Your task to perform on an android device: Add "beats solo 3" to the cart on newegg, then select checkout. Image 0: 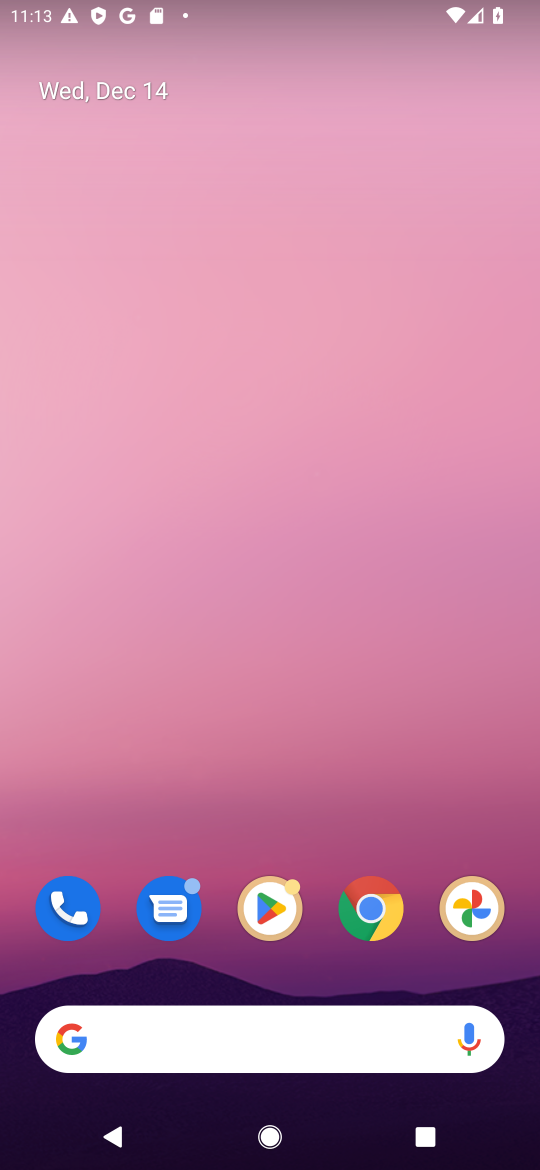
Step 0: click (378, 908)
Your task to perform on an android device: Add "beats solo 3" to the cart on newegg, then select checkout. Image 1: 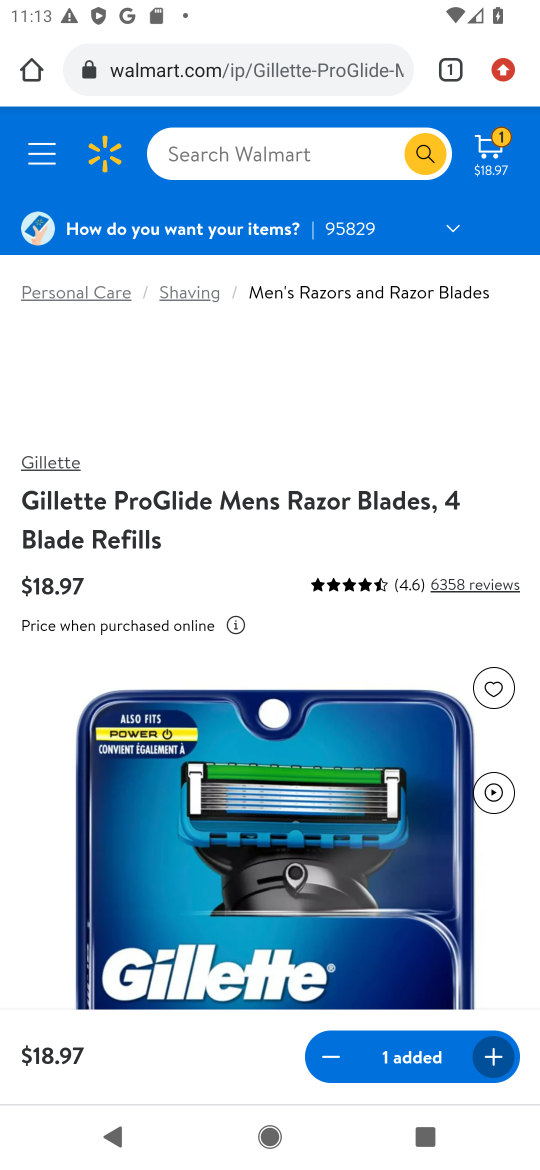
Step 1: click (257, 53)
Your task to perform on an android device: Add "beats solo 3" to the cart on newegg, then select checkout. Image 2: 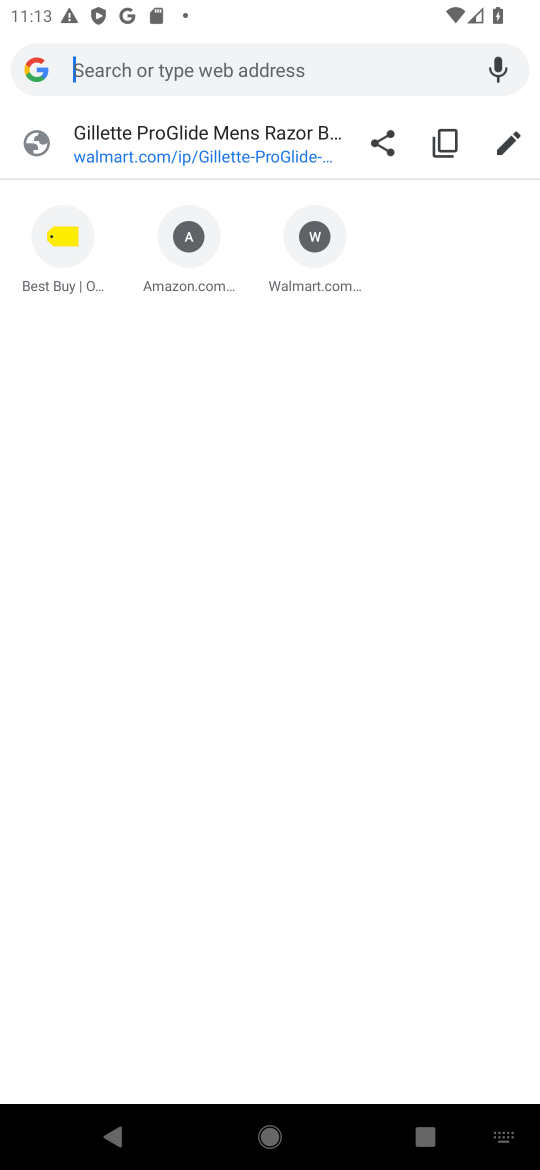
Step 2: type "newegg"
Your task to perform on an android device: Add "beats solo 3" to the cart on newegg, then select checkout. Image 3: 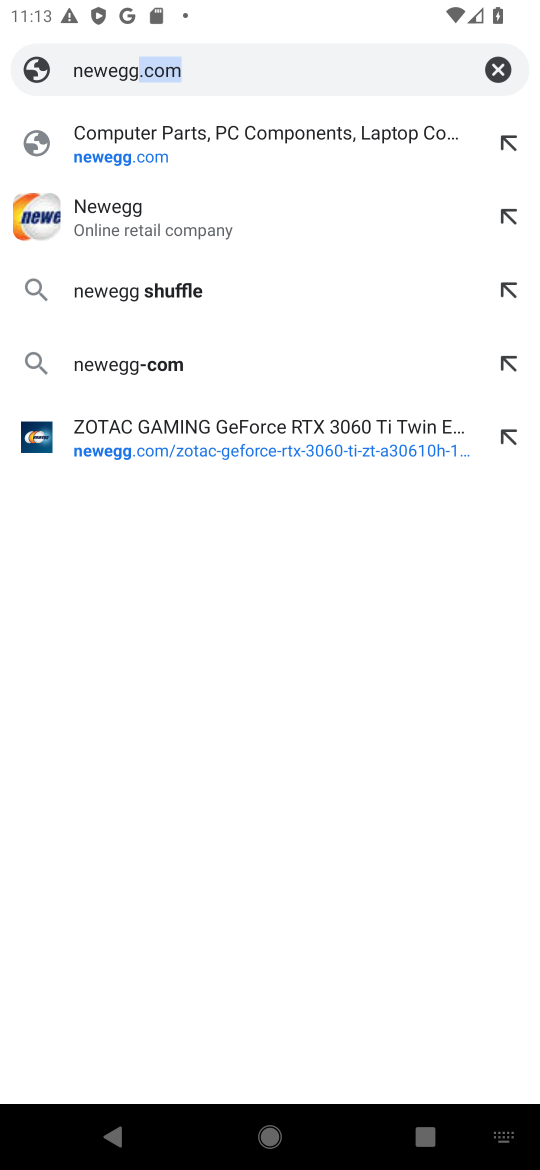
Step 3: click (157, 169)
Your task to perform on an android device: Add "beats solo 3" to the cart on newegg, then select checkout. Image 4: 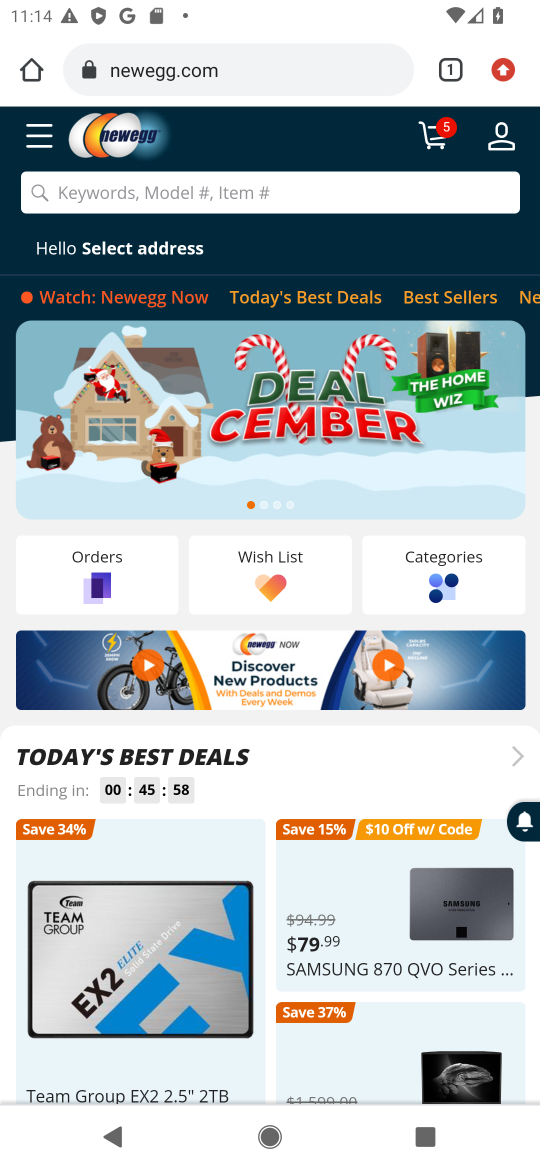
Step 4: click (141, 185)
Your task to perform on an android device: Add "beats solo 3" to the cart on newegg, then select checkout. Image 5: 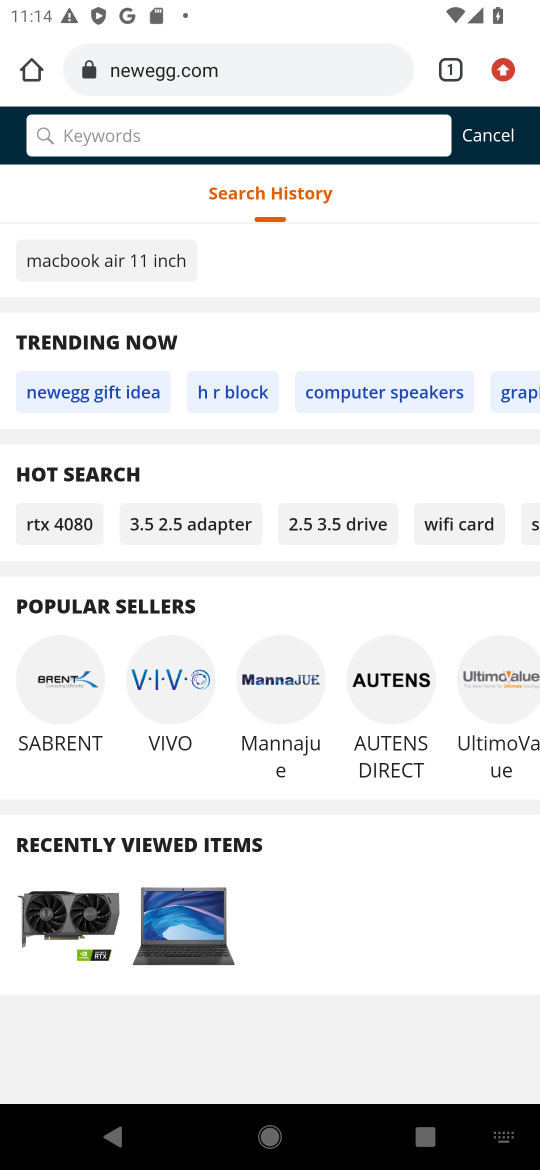
Step 5: type "beats solo 3"
Your task to perform on an android device: Add "beats solo 3" to the cart on newegg, then select checkout. Image 6: 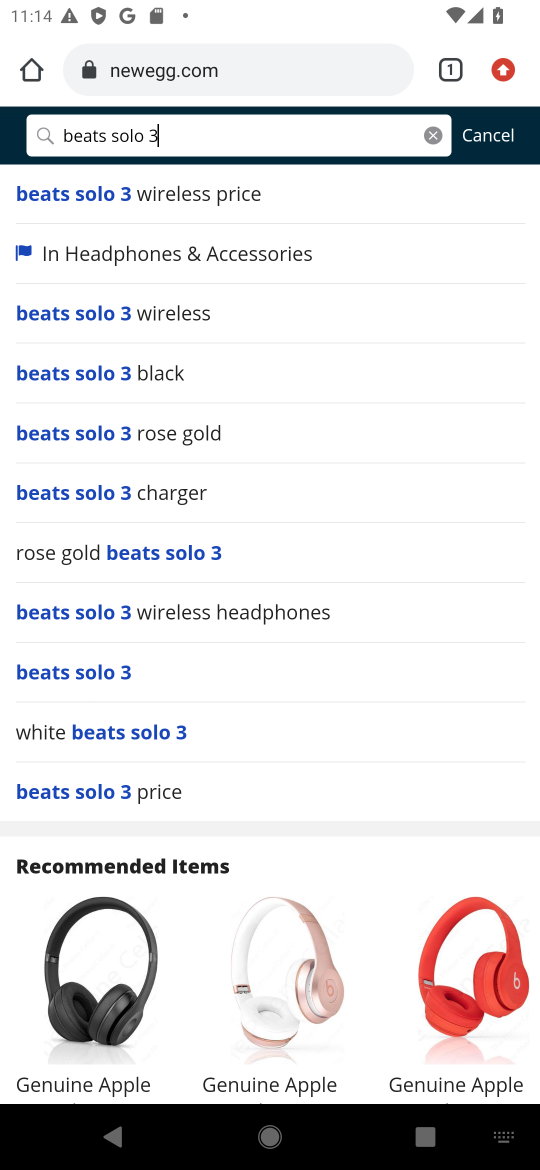
Step 6: click (105, 207)
Your task to perform on an android device: Add "beats solo 3" to the cart on newegg, then select checkout. Image 7: 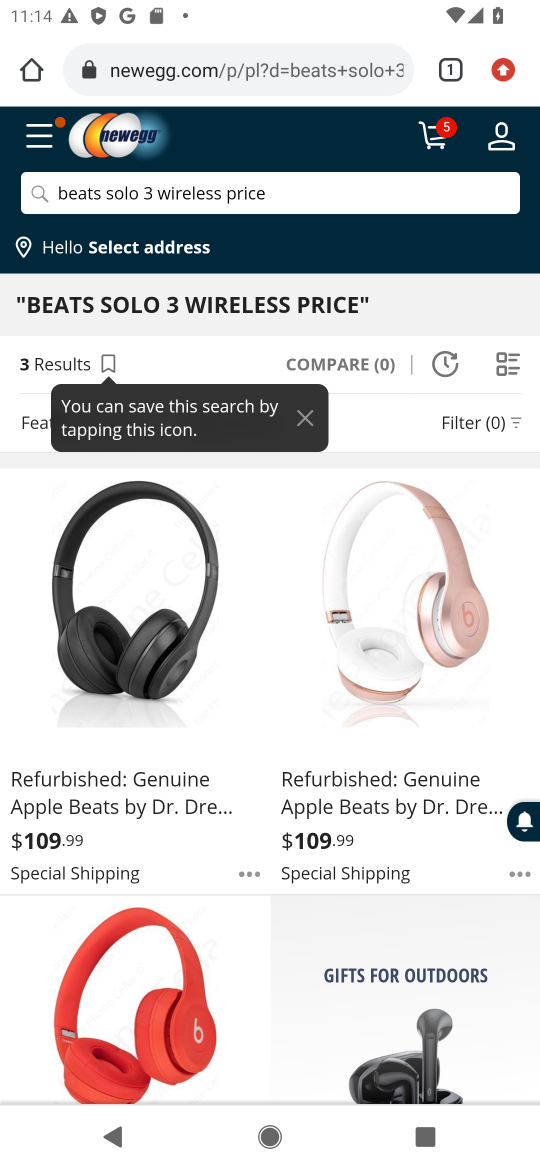
Step 7: click (127, 761)
Your task to perform on an android device: Add "beats solo 3" to the cart on newegg, then select checkout. Image 8: 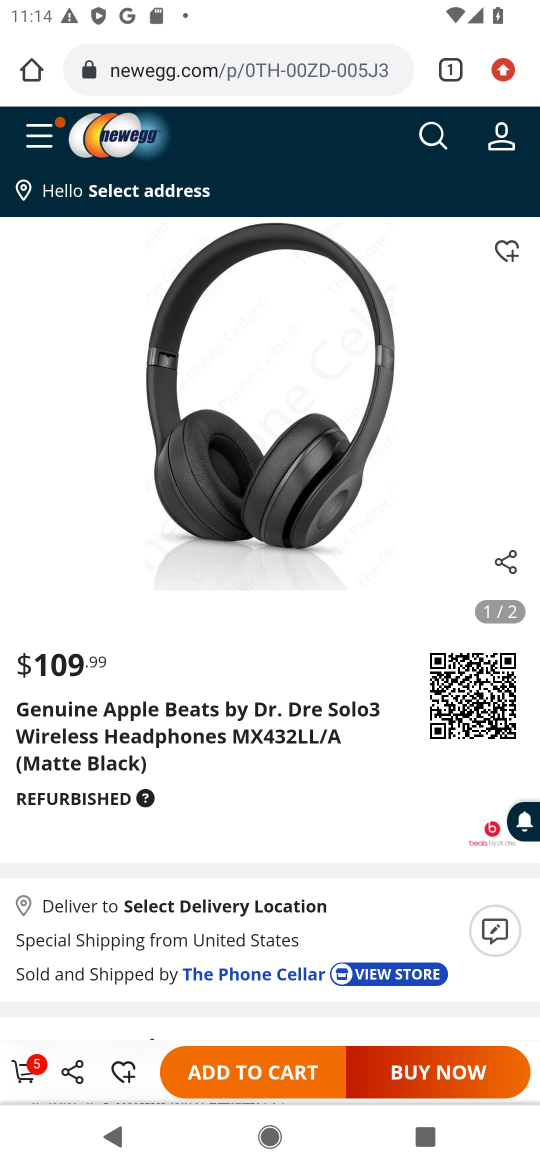
Step 8: click (225, 1062)
Your task to perform on an android device: Add "beats solo 3" to the cart on newegg, then select checkout. Image 9: 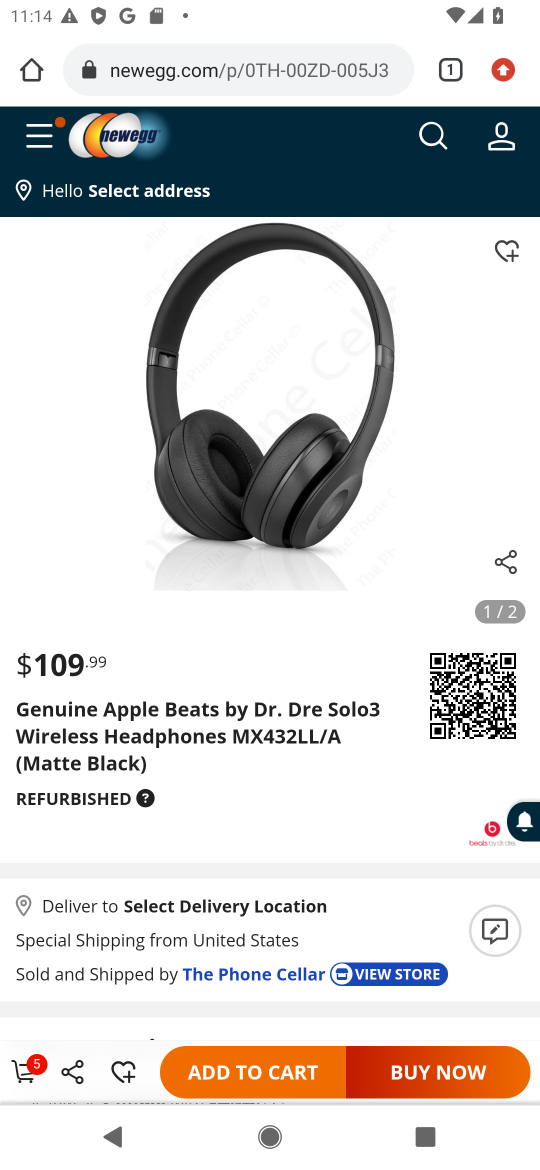
Step 9: task complete